Your task to perform on an android device: Open accessibility settings Image 0: 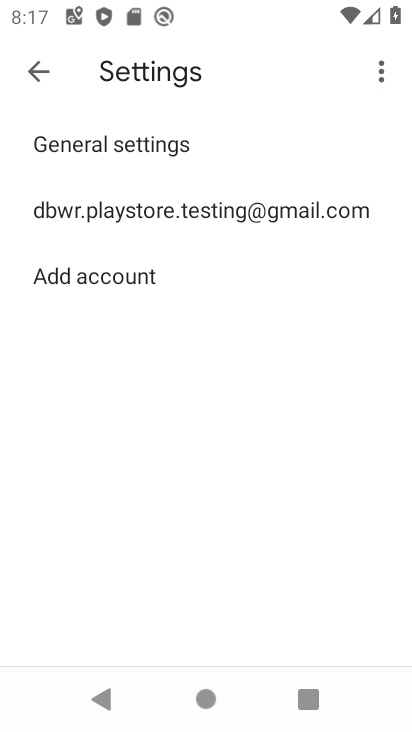
Step 0: press home button
Your task to perform on an android device: Open accessibility settings Image 1: 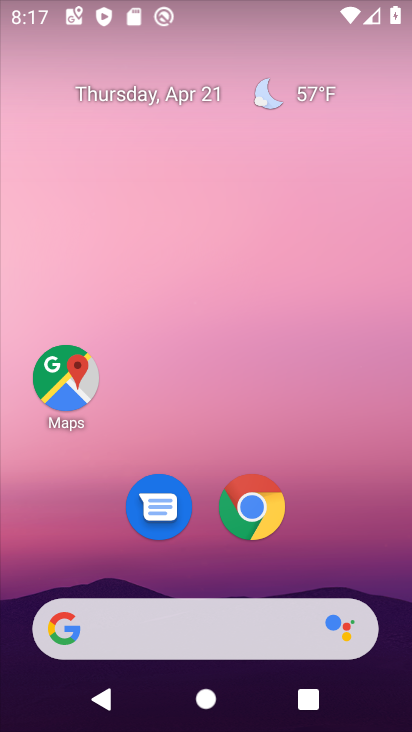
Step 1: drag from (291, 571) to (286, 53)
Your task to perform on an android device: Open accessibility settings Image 2: 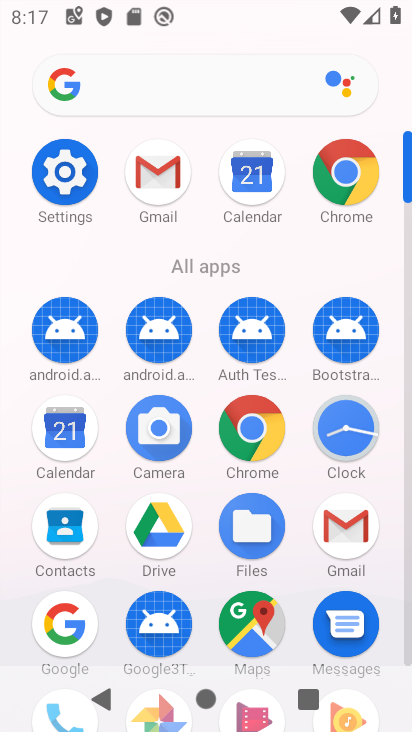
Step 2: click (78, 157)
Your task to perform on an android device: Open accessibility settings Image 3: 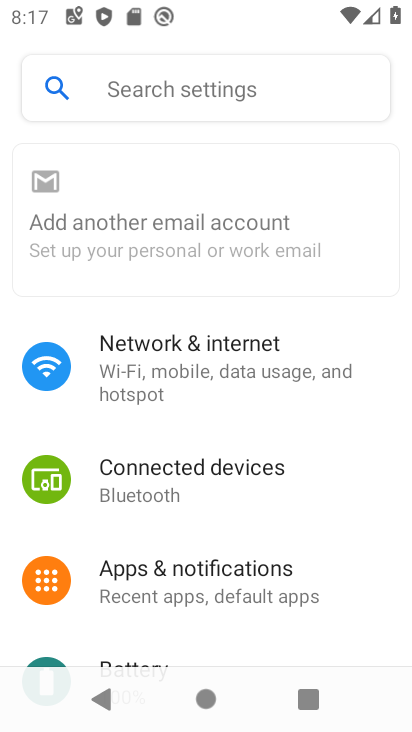
Step 3: drag from (253, 509) to (229, 93)
Your task to perform on an android device: Open accessibility settings Image 4: 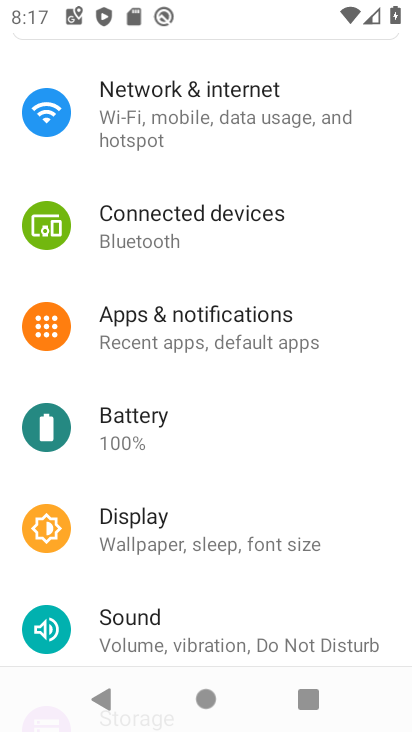
Step 4: drag from (301, 511) to (266, 90)
Your task to perform on an android device: Open accessibility settings Image 5: 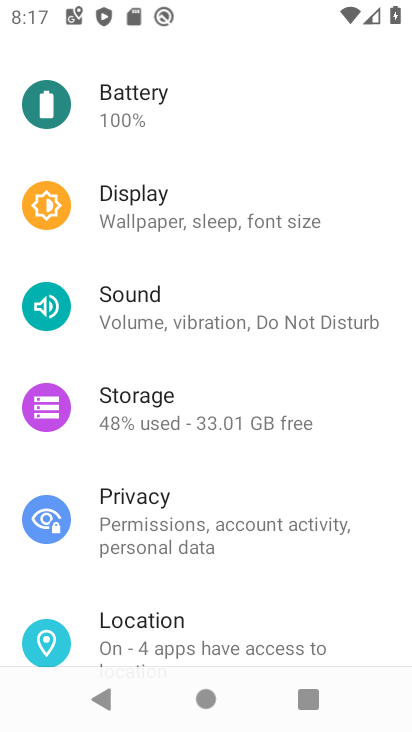
Step 5: drag from (313, 534) to (263, 101)
Your task to perform on an android device: Open accessibility settings Image 6: 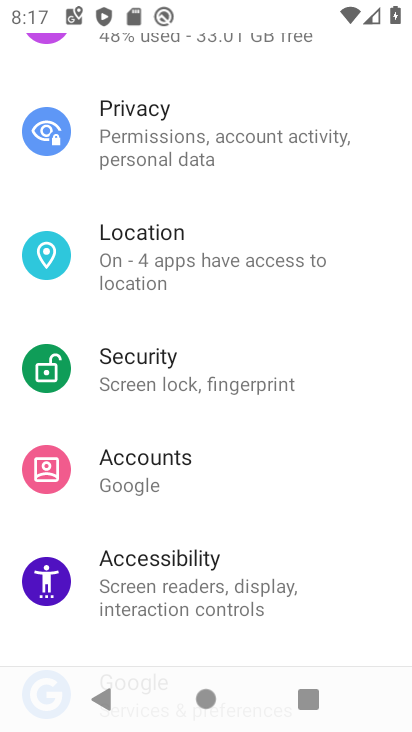
Step 6: click (214, 588)
Your task to perform on an android device: Open accessibility settings Image 7: 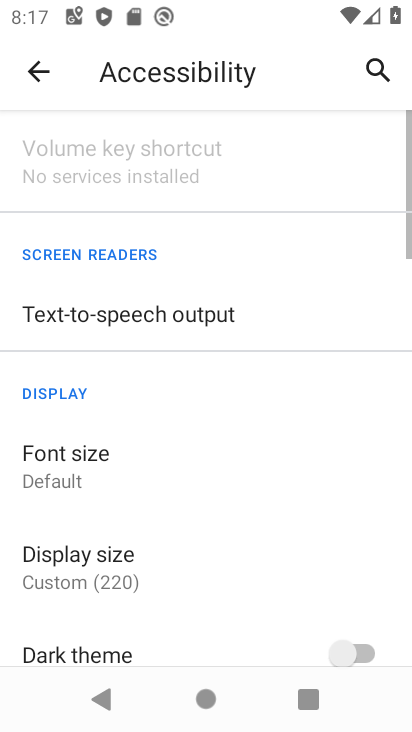
Step 7: task complete